Your task to perform on an android device: Go to network settings Image 0: 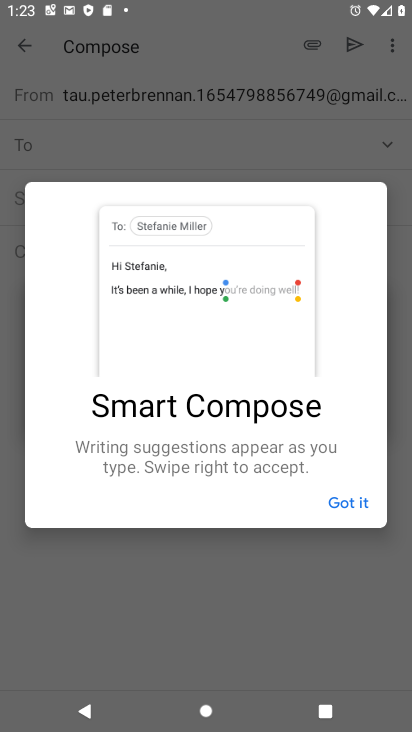
Step 0: press home button
Your task to perform on an android device: Go to network settings Image 1: 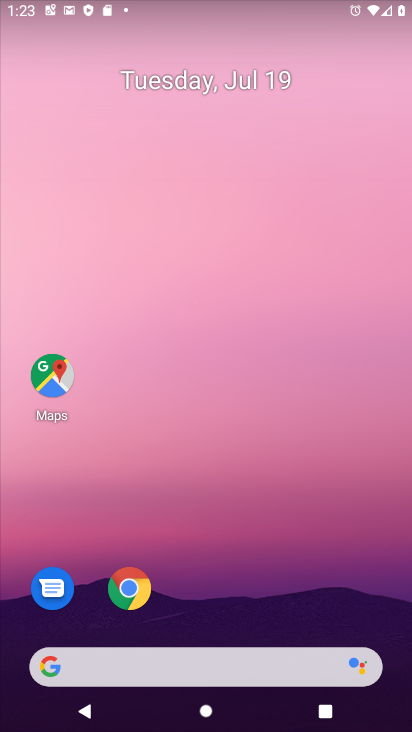
Step 1: drag from (346, 594) to (306, 294)
Your task to perform on an android device: Go to network settings Image 2: 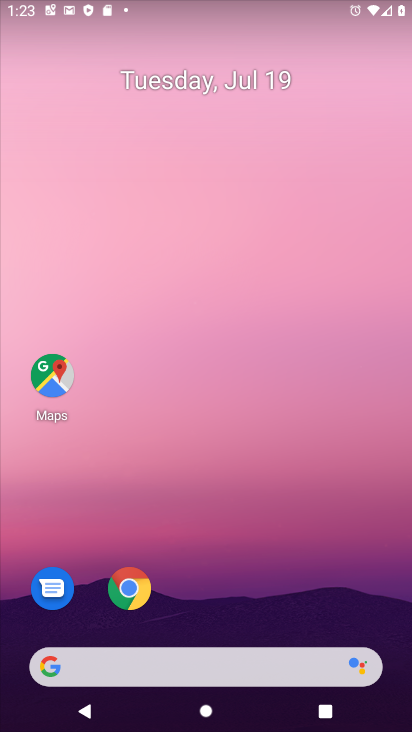
Step 2: drag from (369, 620) to (0, 48)
Your task to perform on an android device: Go to network settings Image 3: 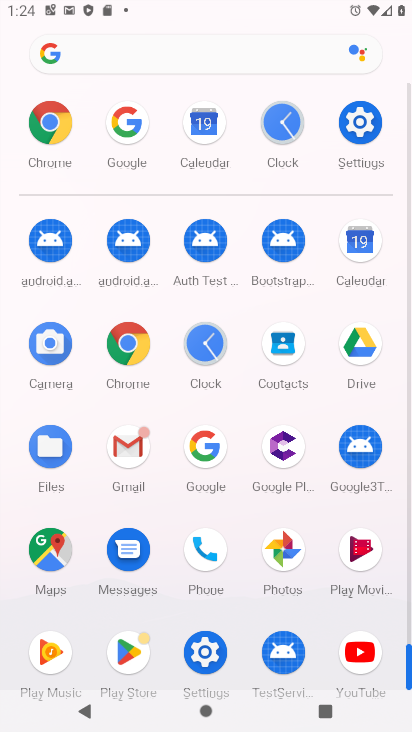
Step 3: click (358, 134)
Your task to perform on an android device: Go to network settings Image 4: 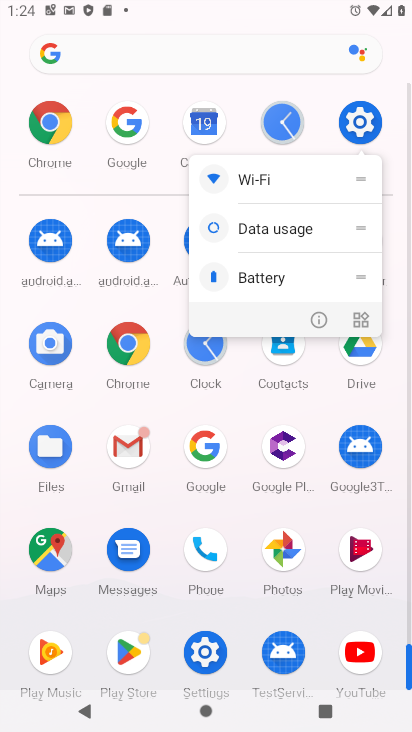
Step 4: click (358, 134)
Your task to perform on an android device: Go to network settings Image 5: 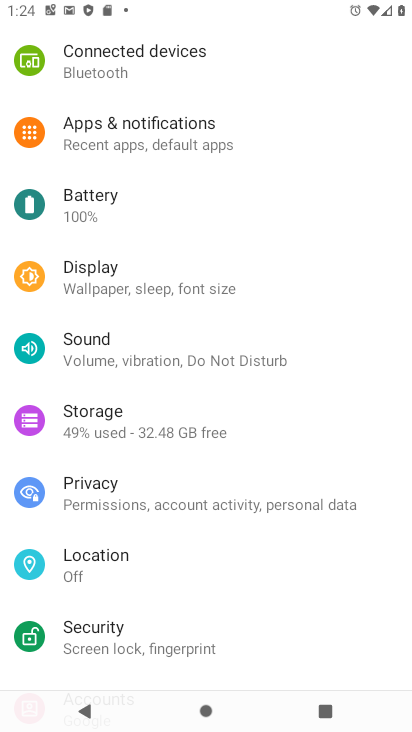
Step 5: drag from (220, 133) to (261, 557)
Your task to perform on an android device: Go to network settings Image 6: 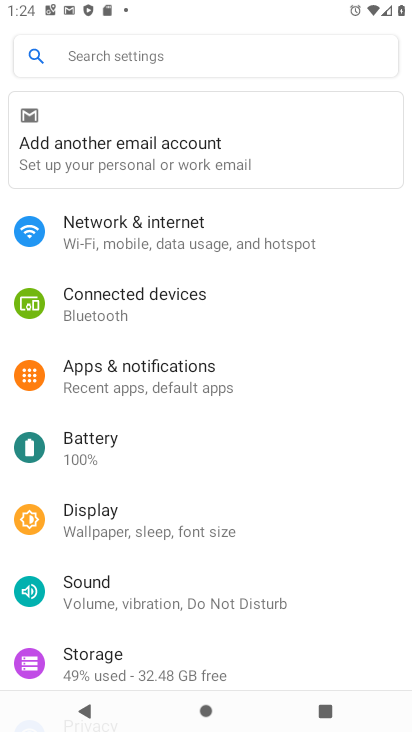
Step 6: click (201, 249)
Your task to perform on an android device: Go to network settings Image 7: 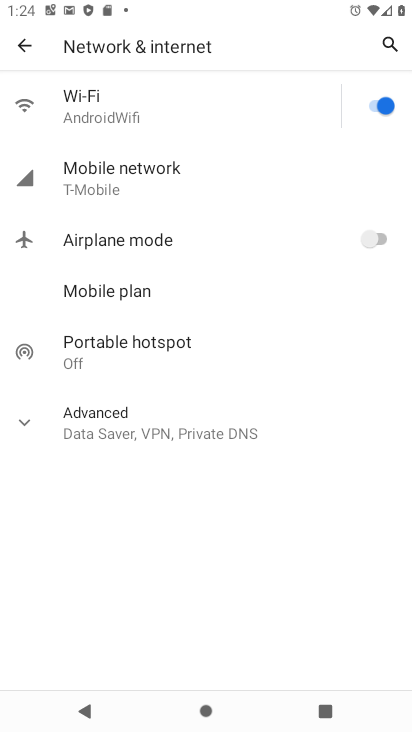
Step 7: task complete